Your task to perform on an android device: turn on bluetooth scan Image 0: 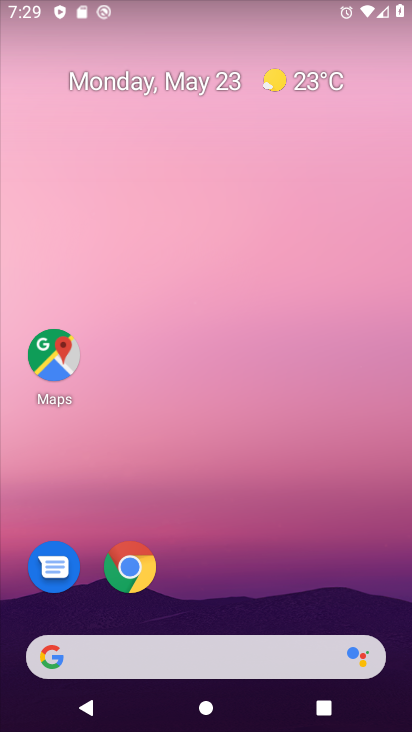
Step 0: drag from (254, 444) to (303, 48)
Your task to perform on an android device: turn on bluetooth scan Image 1: 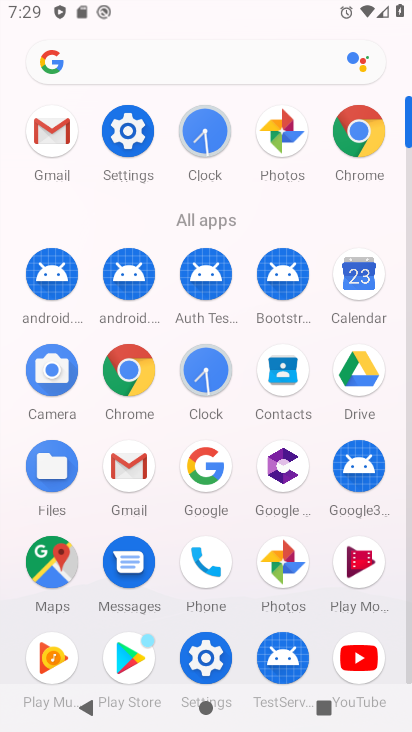
Step 1: click (121, 114)
Your task to perform on an android device: turn on bluetooth scan Image 2: 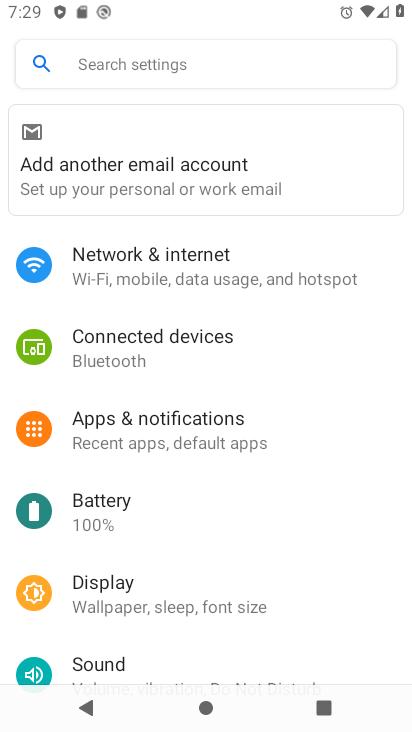
Step 2: click (195, 59)
Your task to perform on an android device: turn on bluetooth scan Image 3: 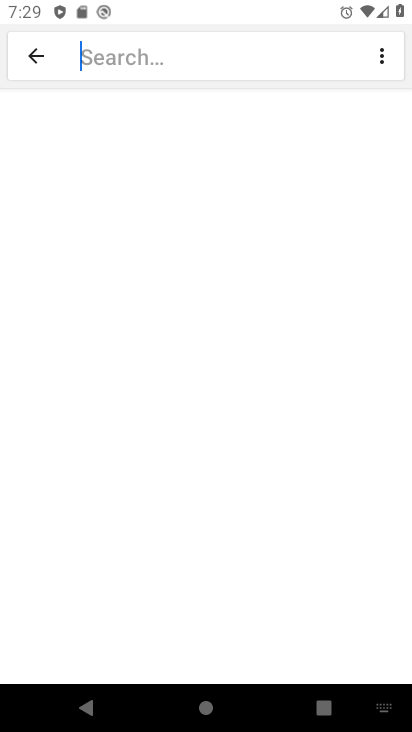
Step 3: type " bluetooth scan"
Your task to perform on an android device: turn on bluetooth scan Image 4: 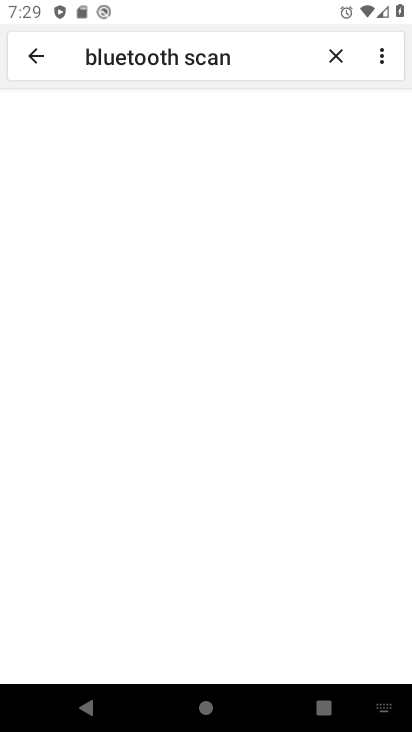
Step 4: drag from (219, 412) to (225, 288)
Your task to perform on an android device: turn on bluetooth scan Image 5: 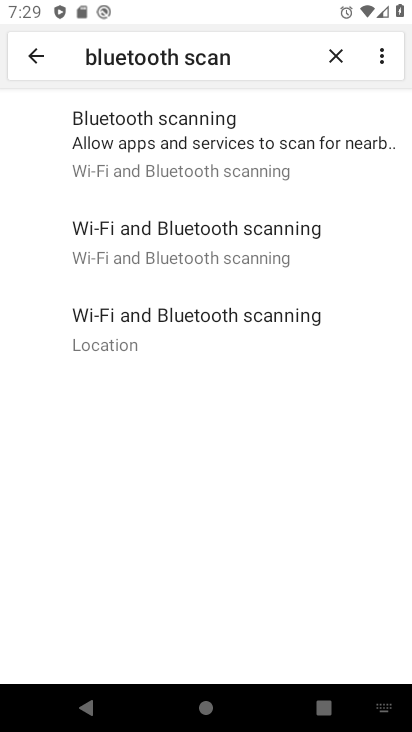
Step 5: click (213, 153)
Your task to perform on an android device: turn on bluetooth scan Image 6: 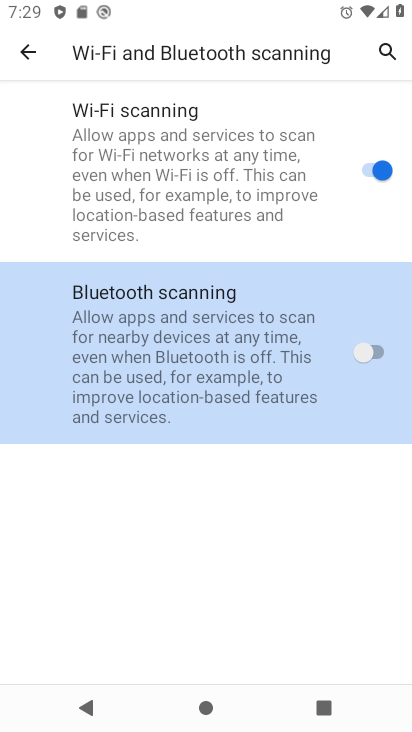
Step 6: click (377, 350)
Your task to perform on an android device: turn on bluetooth scan Image 7: 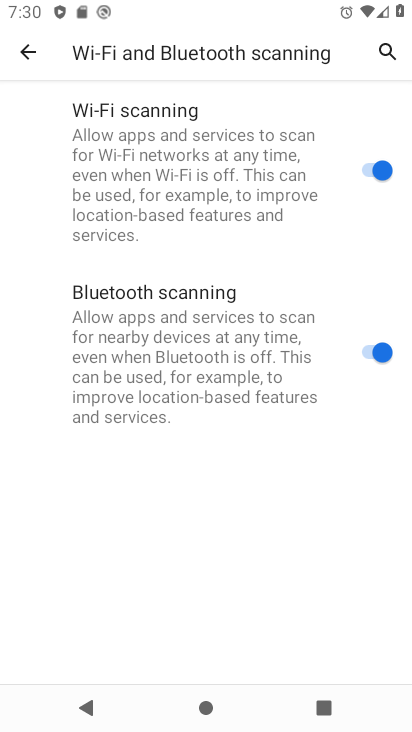
Step 7: task complete